Your task to perform on an android device: delete the emails in spam in the gmail app Image 0: 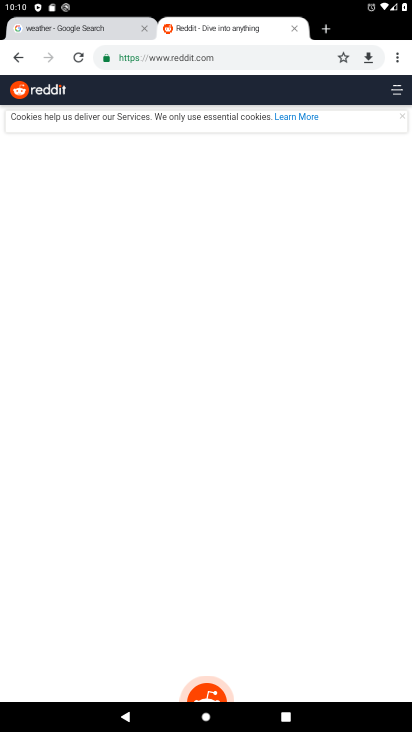
Step 0: press home button
Your task to perform on an android device: delete the emails in spam in the gmail app Image 1: 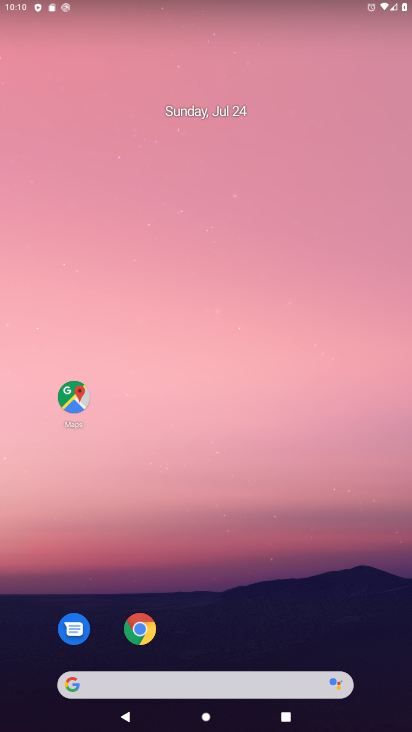
Step 1: drag from (201, 679) to (268, 187)
Your task to perform on an android device: delete the emails in spam in the gmail app Image 2: 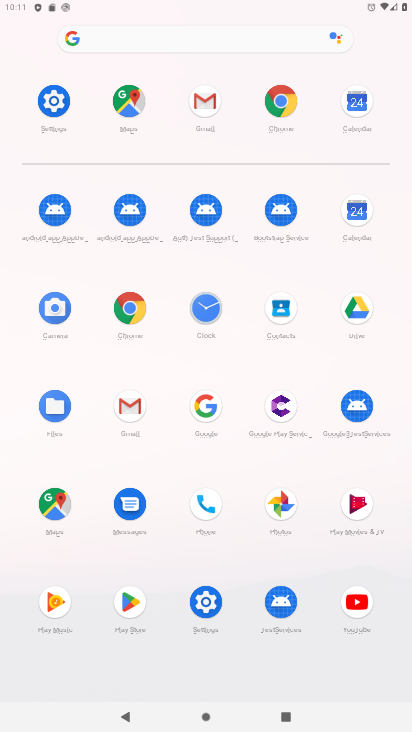
Step 2: click (203, 99)
Your task to perform on an android device: delete the emails in spam in the gmail app Image 3: 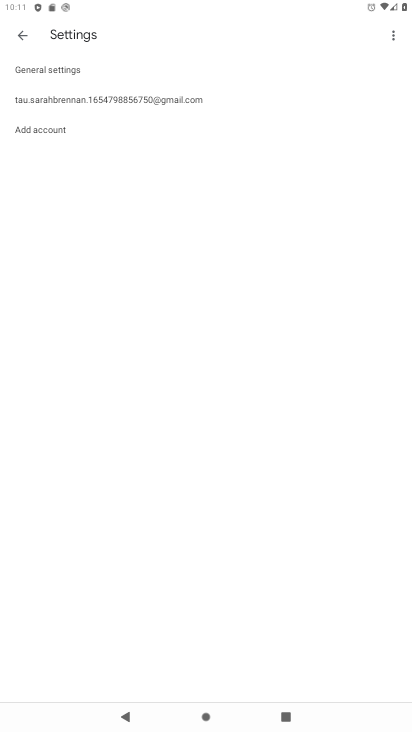
Step 3: task complete